Your task to perform on an android device: Is it going to rain this weekend? Image 0: 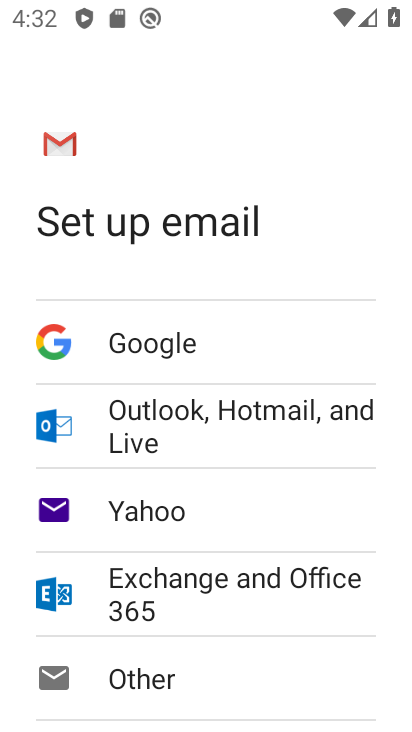
Step 0: press home button
Your task to perform on an android device: Is it going to rain this weekend? Image 1: 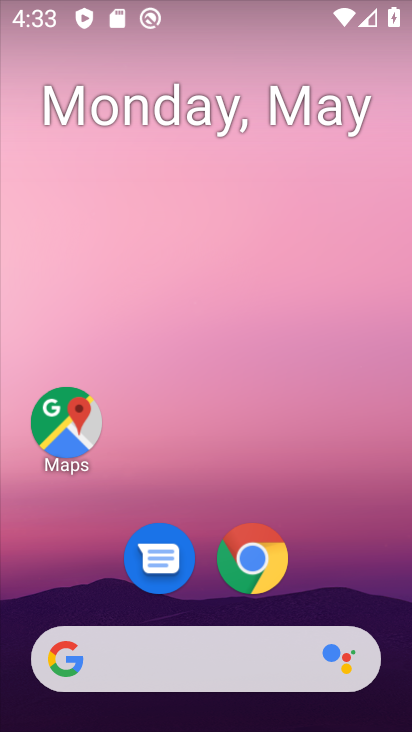
Step 1: click (224, 652)
Your task to perform on an android device: Is it going to rain this weekend? Image 2: 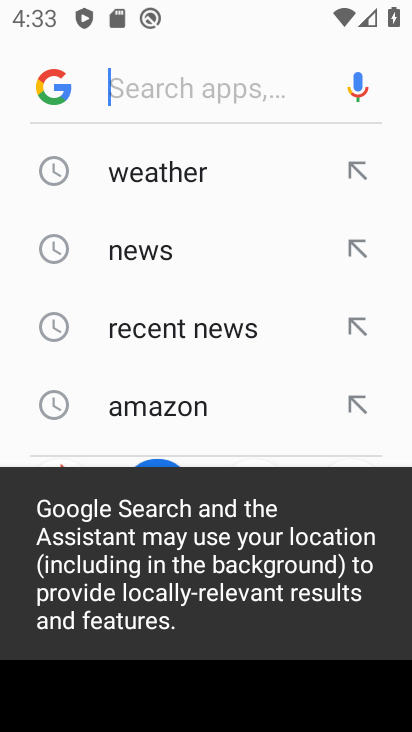
Step 2: click (165, 159)
Your task to perform on an android device: Is it going to rain this weekend? Image 3: 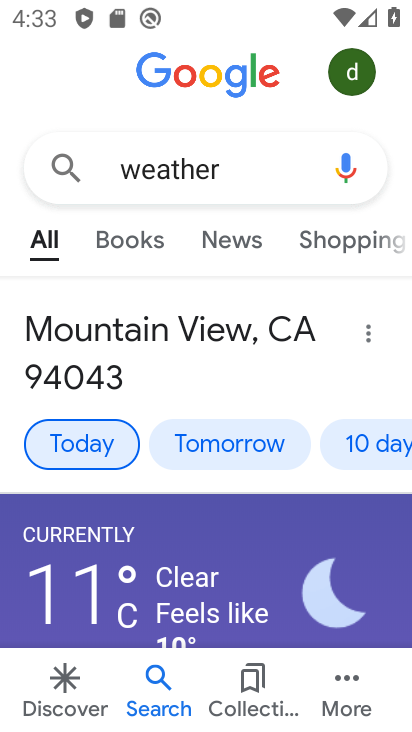
Step 3: click (353, 449)
Your task to perform on an android device: Is it going to rain this weekend? Image 4: 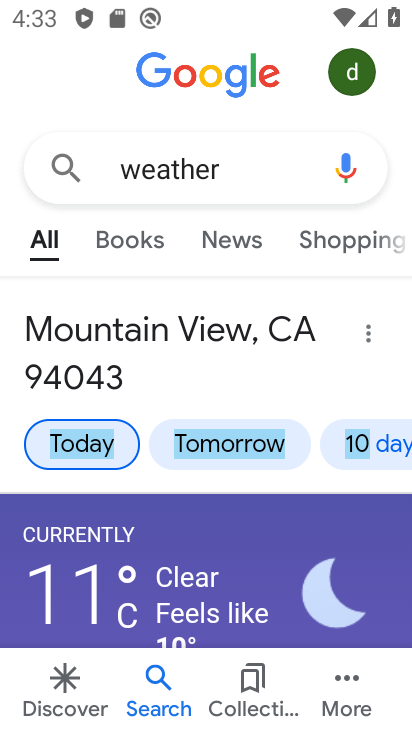
Step 4: click (353, 449)
Your task to perform on an android device: Is it going to rain this weekend? Image 5: 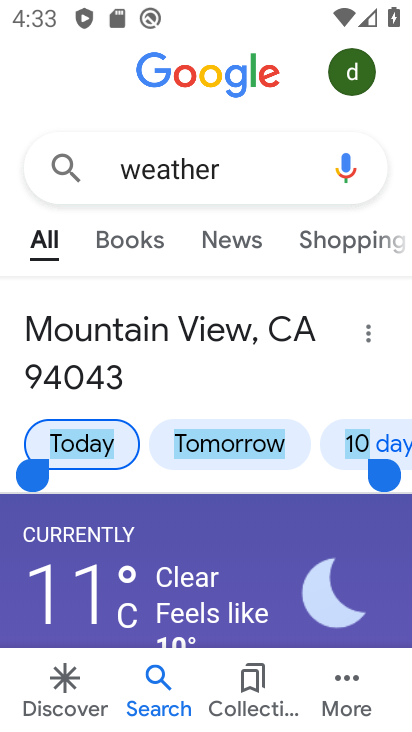
Step 5: click (353, 449)
Your task to perform on an android device: Is it going to rain this weekend? Image 6: 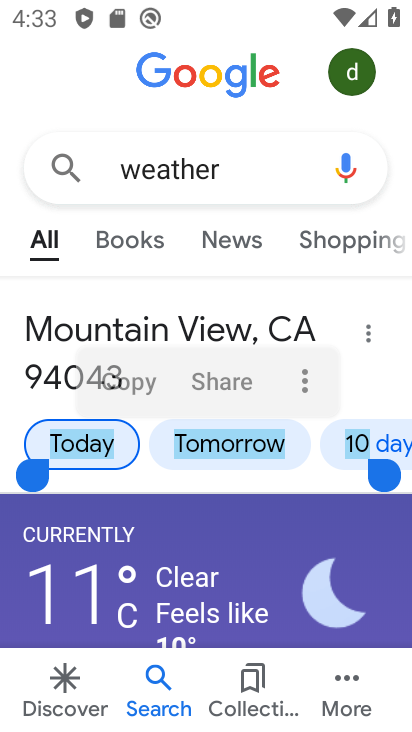
Step 6: click (353, 449)
Your task to perform on an android device: Is it going to rain this weekend? Image 7: 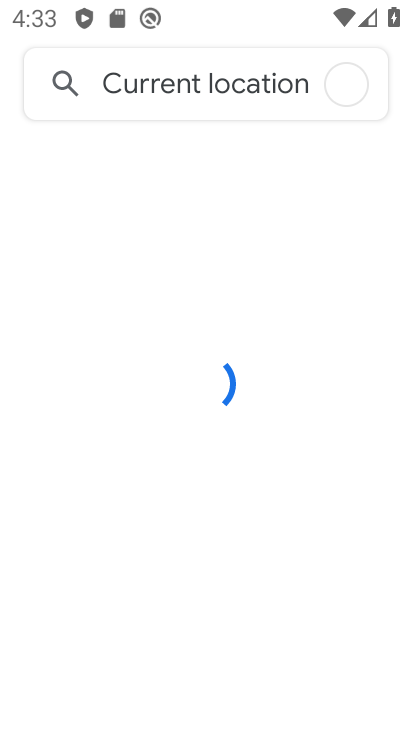
Step 7: click (393, 462)
Your task to perform on an android device: Is it going to rain this weekend? Image 8: 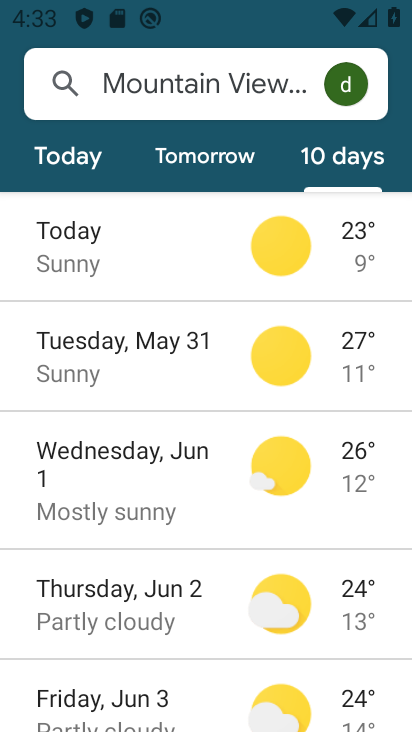
Step 8: task complete